Your task to perform on an android device: install app "Upside-Cash back on gas & food" Image 0: 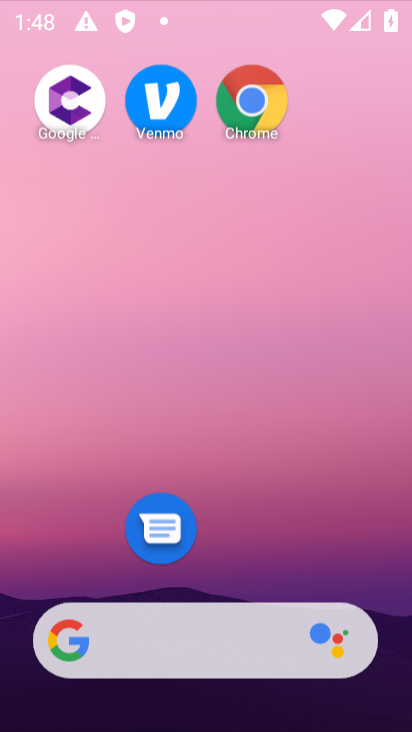
Step 0: drag from (318, 576) to (254, 12)
Your task to perform on an android device: install app "Upside-Cash back on gas & food" Image 1: 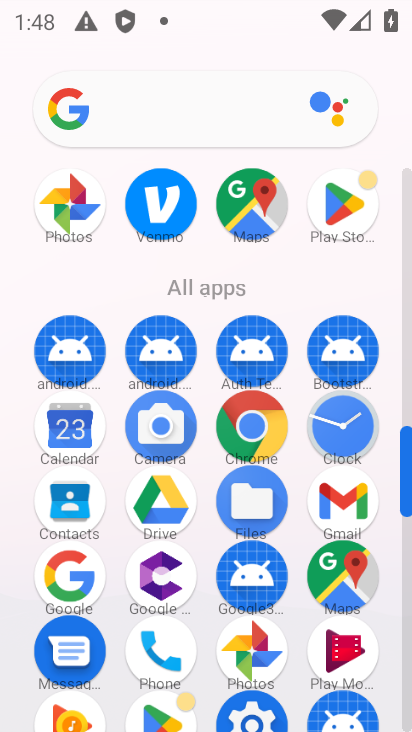
Step 1: click (347, 200)
Your task to perform on an android device: install app "Upside-Cash back on gas & food" Image 2: 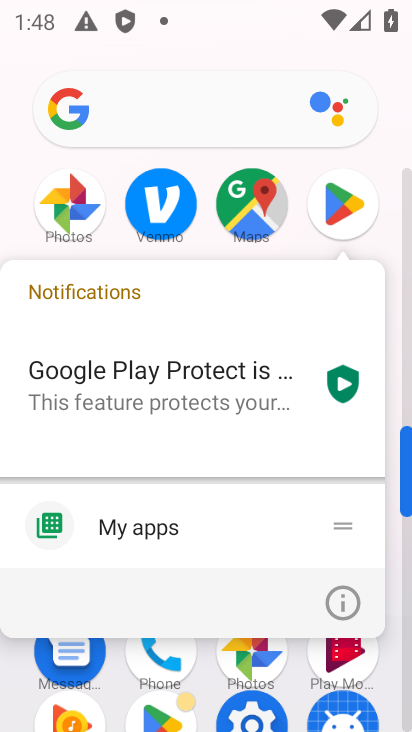
Step 2: click (347, 199)
Your task to perform on an android device: install app "Upside-Cash back on gas & food" Image 3: 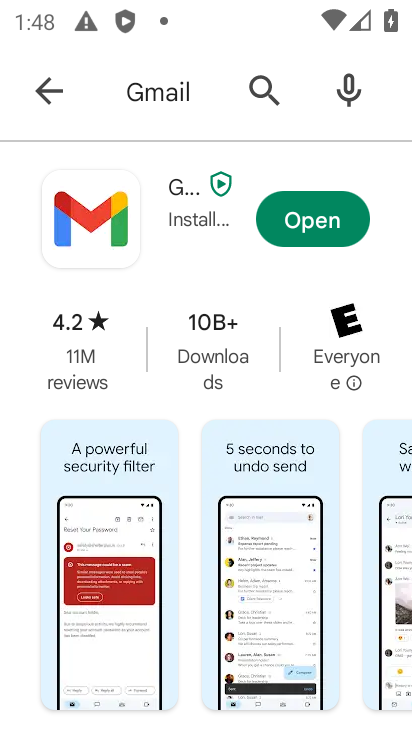
Step 3: press back button
Your task to perform on an android device: install app "Upside-Cash back on gas & food" Image 4: 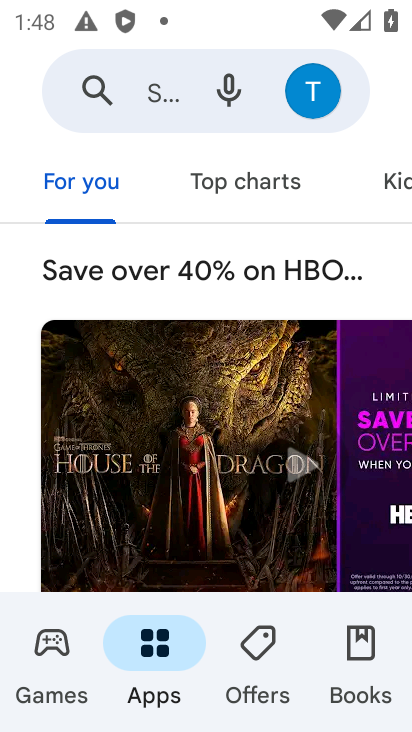
Step 4: click (162, 98)
Your task to perform on an android device: install app "Upside-Cash back on gas & food" Image 5: 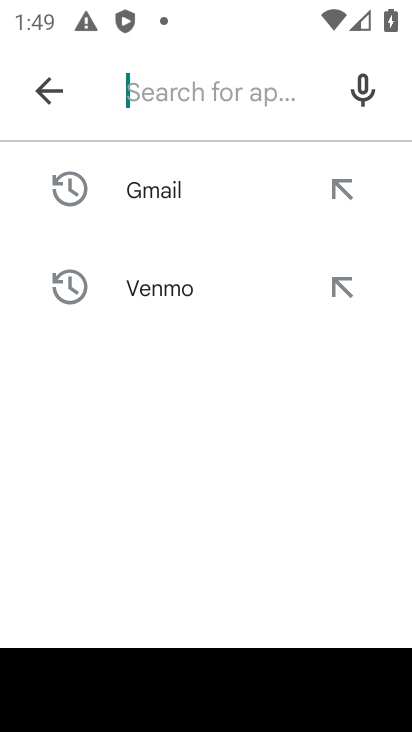
Step 5: type "Upside-Cash back on gas & food"
Your task to perform on an android device: install app "Upside-Cash back on gas & food" Image 6: 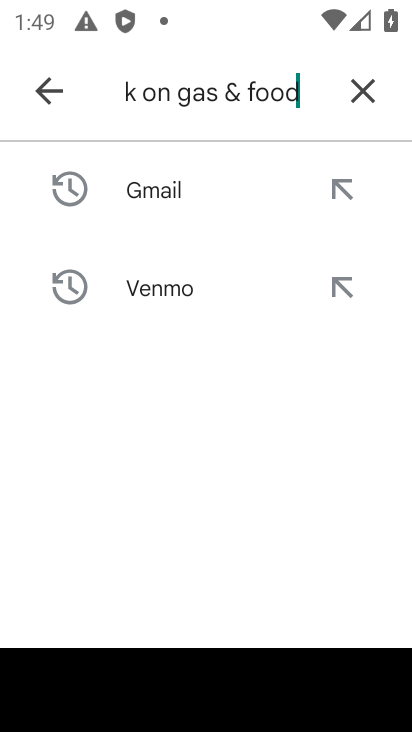
Step 6: press enter
Your task to perform on an android device: install app "Upside-Cash back on gas & food" Image 7: 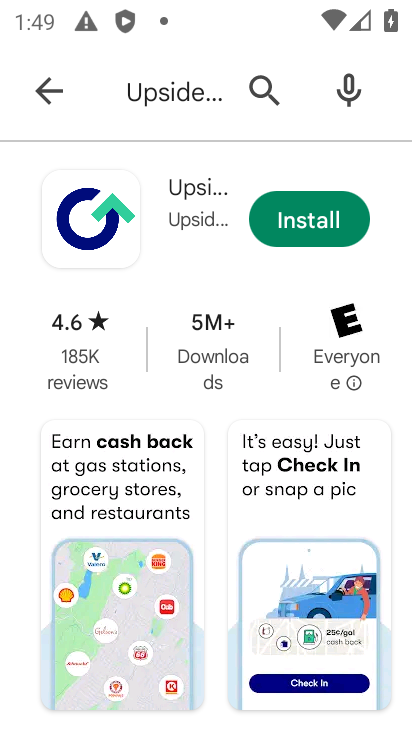
Step 7: click (329, 211)
Your task to perform on an android device: install app "Upside-Cash back on gas & food" Image 8: 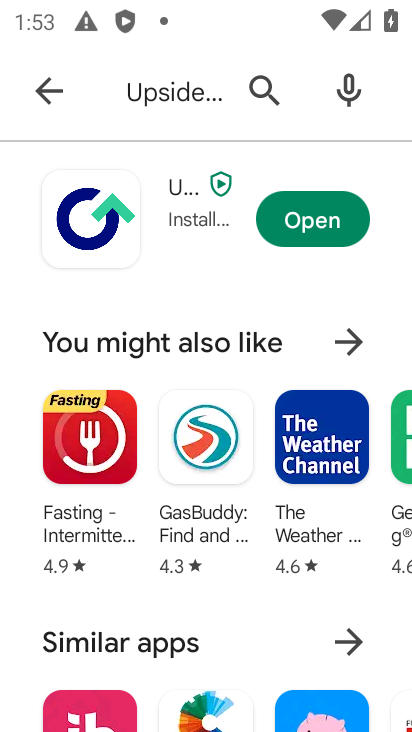
Step 8: task complete